Your task to perform on an android device: Go to ESPN.com Image 0: 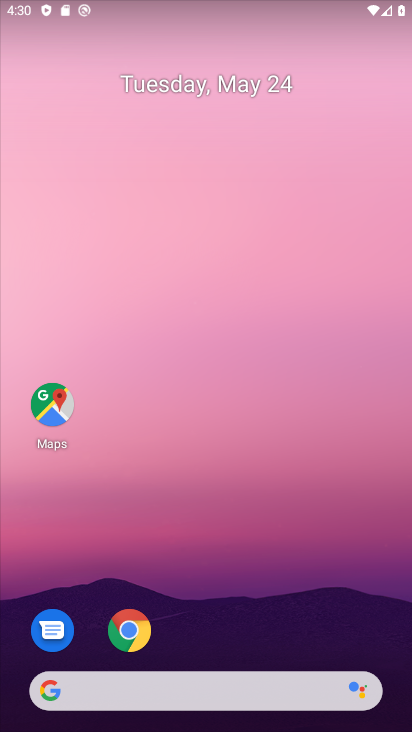
Step 0: click (187, 678)
Your task to perform on an android device: Go to ESPN.com Image 1: 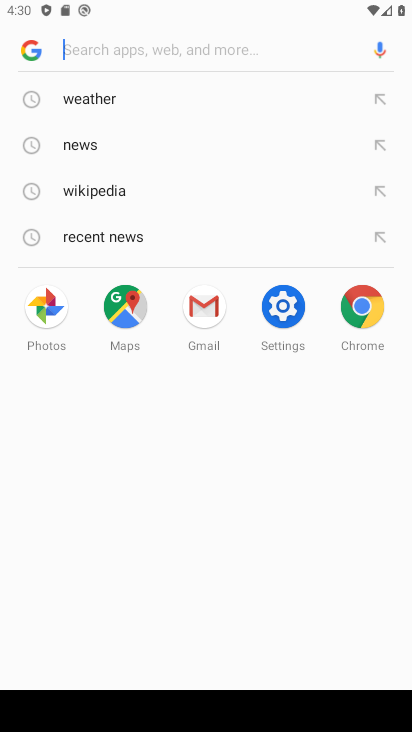
Step 1: type "espn.com"
Your task to perform on an android device: Go to ESPN.com Image 2: 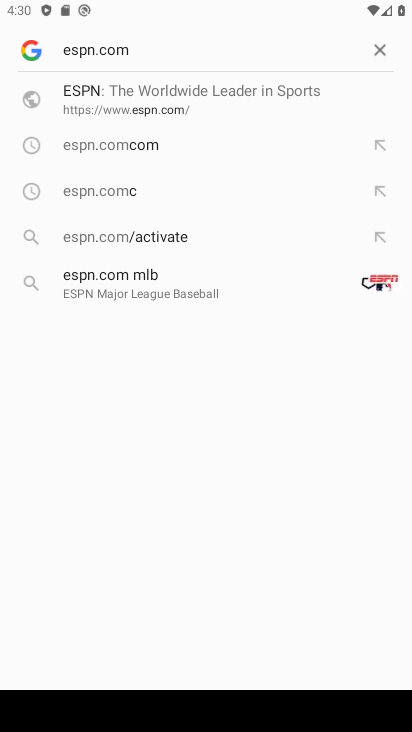
Step 2: click (133, 82)
Your task to perform on an android device: Go to ESPN.com Image 3: 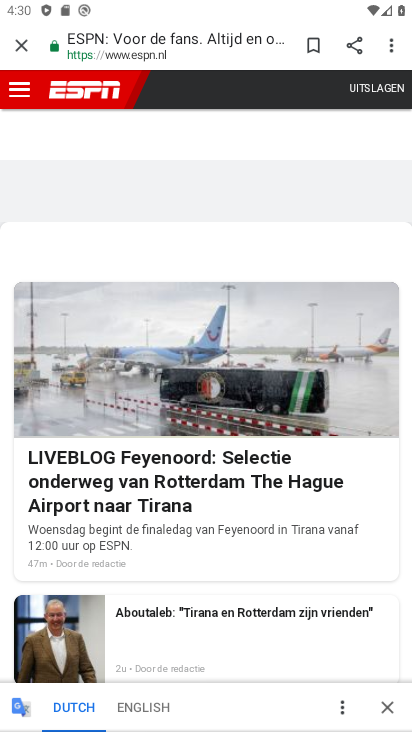
Step 3: task complete